Your task to perform on an android device: delete location history Image 0: 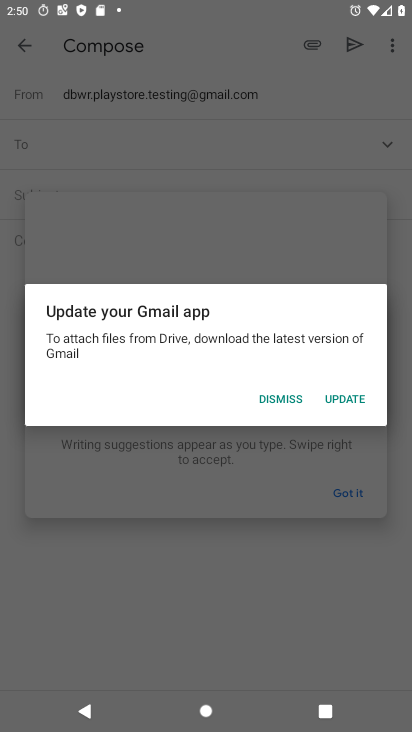
Step 0: press home button
Your task to perform on an android device: delete location history Image 1: 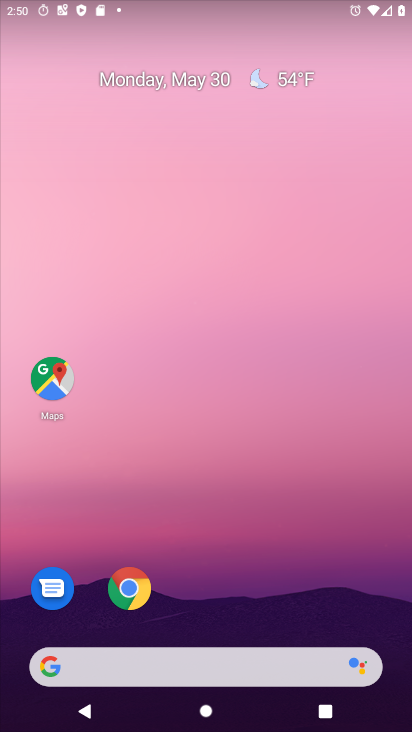
Step 1: drag from (230, 354) to (236, 106)
Your task to perform on an android device: delete location history Image 2: 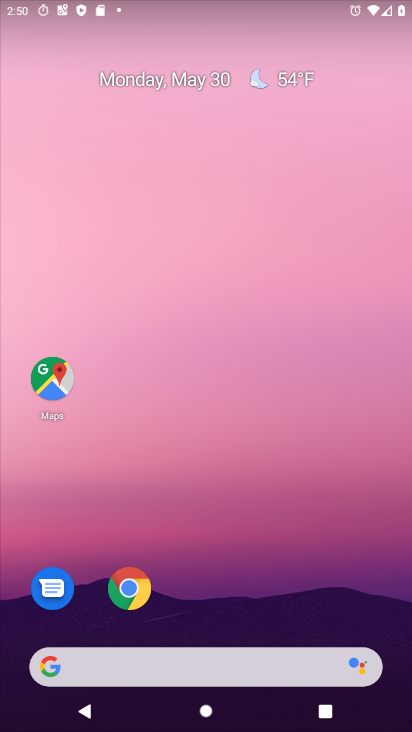
Step 2: drag from (232, 598) to (270, 53)
Your task to perform on an android device: delete location history Image 3: 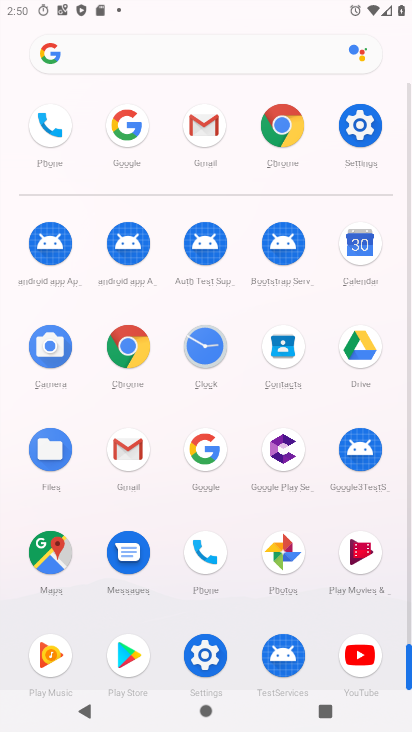
Step 3: click (361, 126)
Your task to perform on an android device: delete location history Image 4: 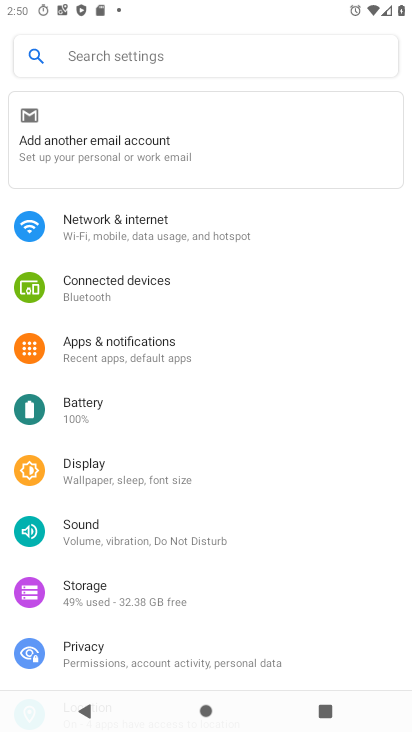
Step 4: drag from (199, 645) to (235, 221)
Your task to perform on an android device: delete location history Image 5: 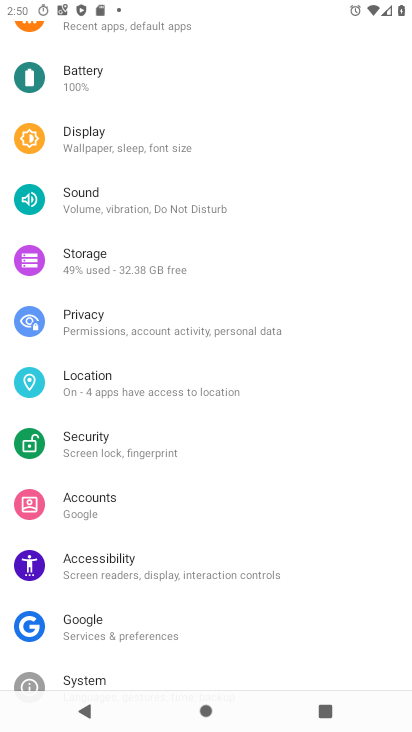
Step 5: click (128, 389)
Your task to perform on an android device: delete location history Image 6: 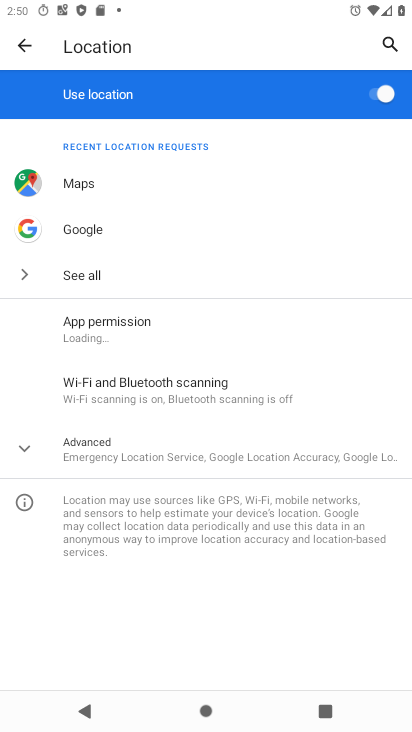
Step 6: click (125, 462)
Your task to perform on an android device: delete location history Image 7: 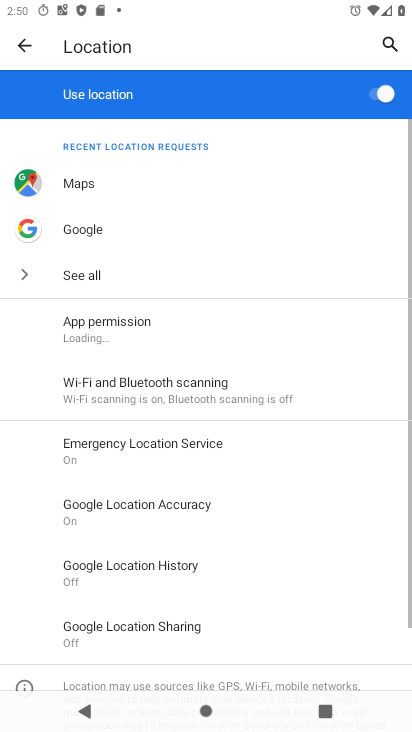
Step 7: drag from (201, 611) to (218, 137)
Your task to perform on an android device: delete location history Image 8: 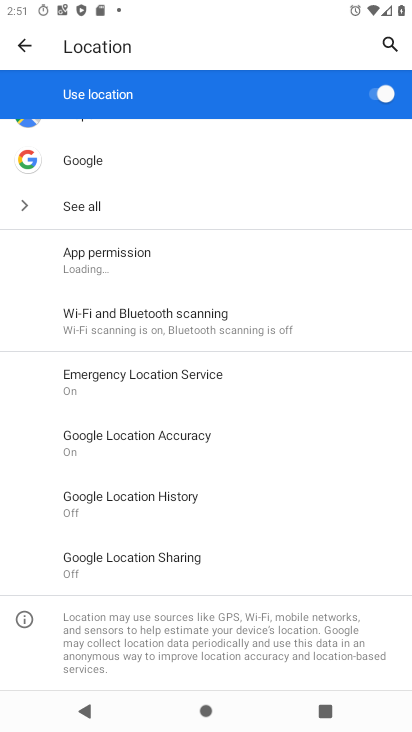
Step 8: drag from (159, 278) to (157, 376)
Your task to perform on an android device: delete location history Image 9: 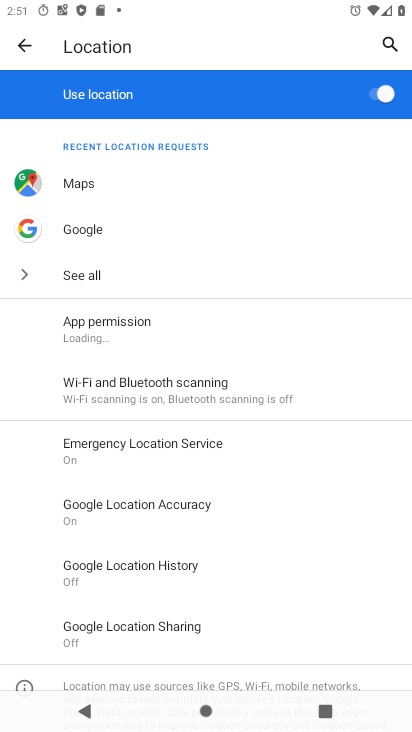
Step 9: click (127, 565)
Your task to perform on an android device: delete location history Image 10: 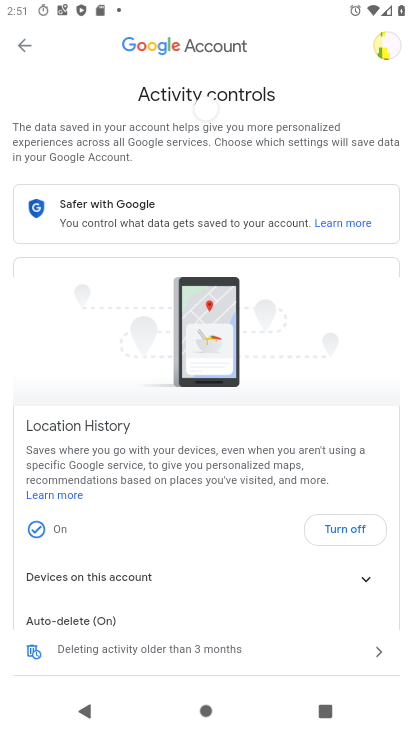
Step 10: drag from (289, 577) to (272, 61)
Your task to perform on an android device: delete location history Image 11: 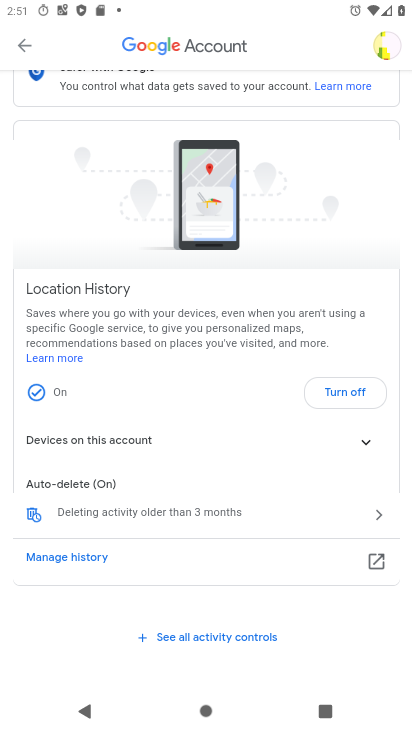
Step 11: click (33, 520)
Your task to perform on an android device: delete location history Image 12: 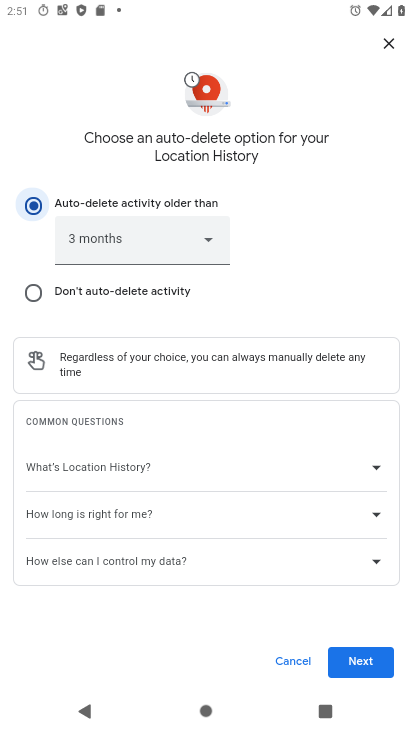
Step 12: click (361, 659)
Your task to perform on an android device: delete location history Image 13: 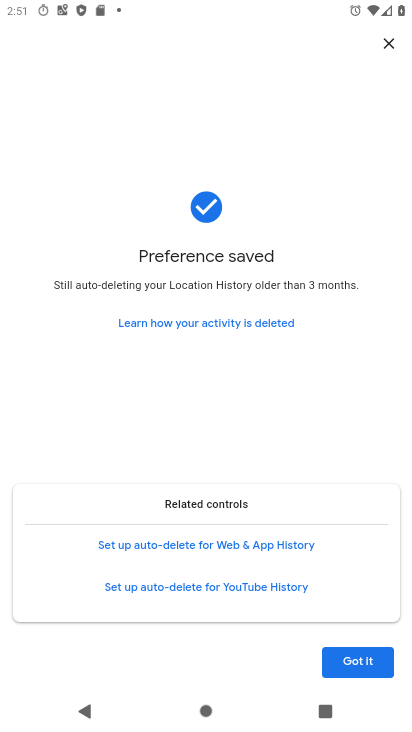
Step 13: click (361, 659)
Your task to perform on an android device: delete location history Image 14: 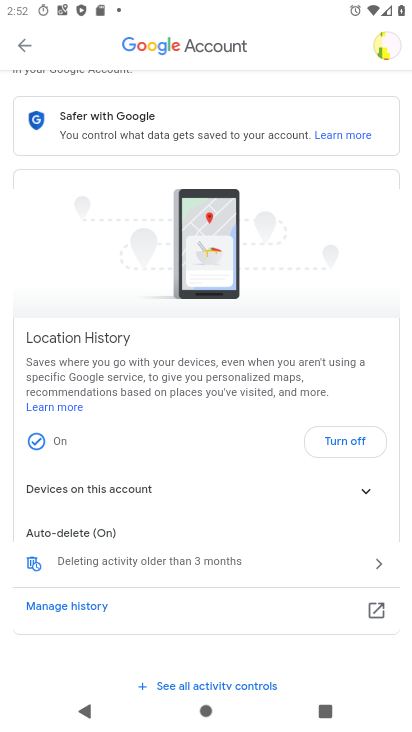
Step 14: task complete